Your task to perform on an android device: search for starred emails in the gmail app Image 0: 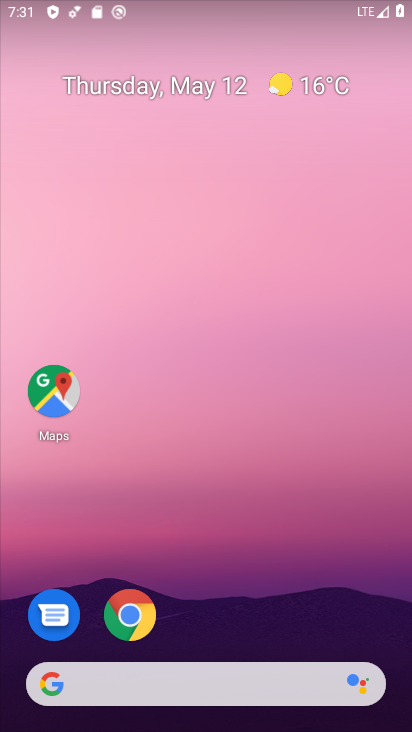
Step 0: drag from (294, 528) to (243, 6)
Your task to perform on an android device: search for starred emails in the gmail app Image 1: 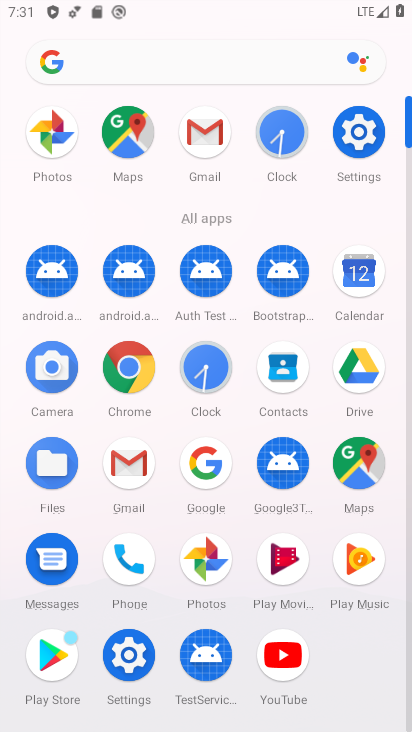
Step 1: click (200, 135)
Your task to perform on an android device: search for starred emails in the gmail app Image 2: 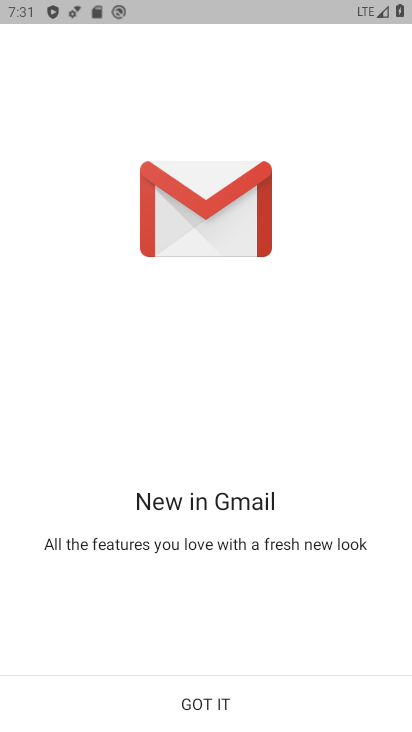
Step 2: click (248, 699)
Your task to perform on an android device: search for starred emails in the gmail app Image 3: 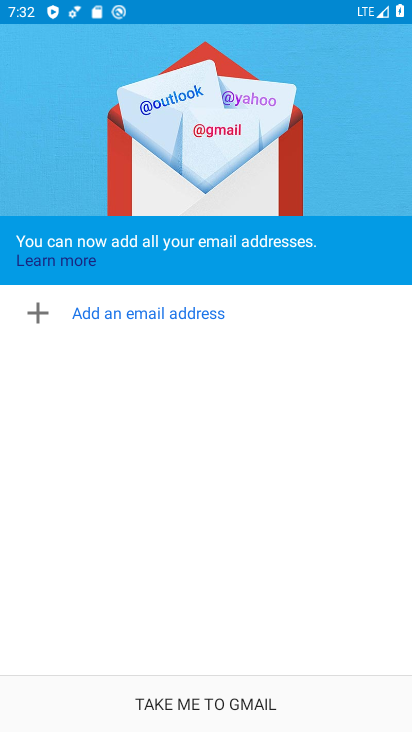
Step 3: click (268, 693)
Your task to perform on an android device: search for starred emails in the gmail app Image 4: 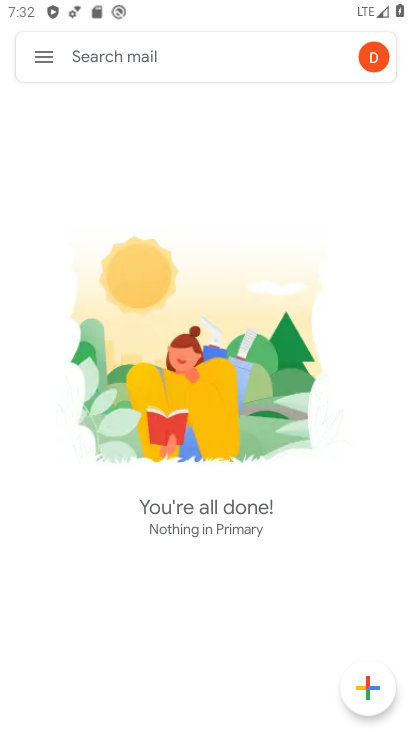
Step 4: click (33, 48)
Your task to perform on an android device: search for starred emails in the gmail app Image 5: 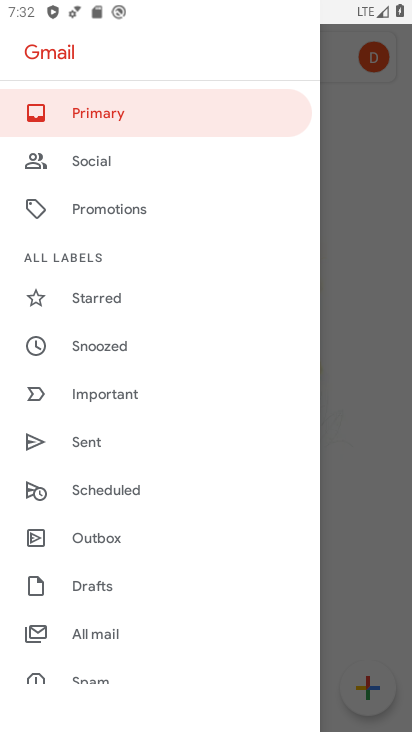
Step 5: click (158, 284)
Your task to perform on an android device: search for starred emails in the gmail app Image 6: 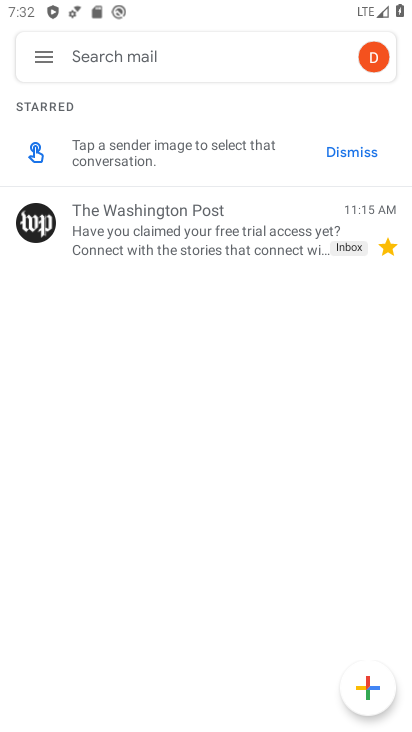
Step 6: task complete